Your task to perform on an android device: Open Android settings Image 0: 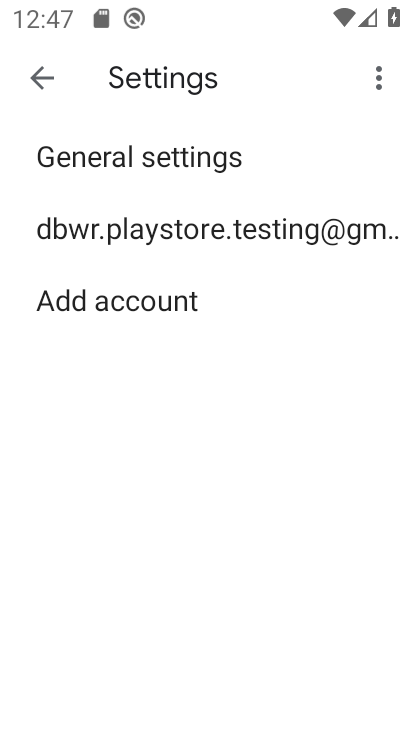
Step 0: press home button
Your task to perform on an android device: Open Android settings Image 1: 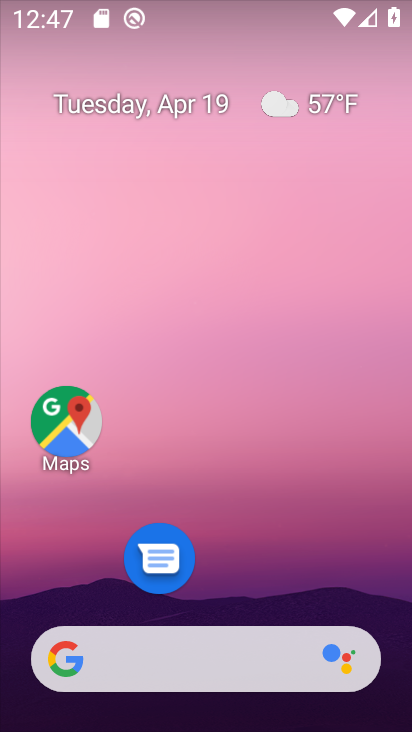
Step 1: drag from (211, 556) to (151, 37)
Your task to perform on an android device: Open Android settings Image 2: 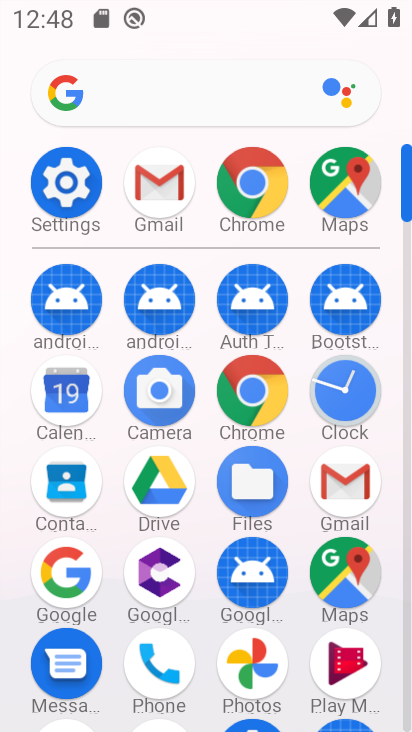
Step 2: click (81, 191)
Your task to perform on an android device: Open Android settings Image 3: 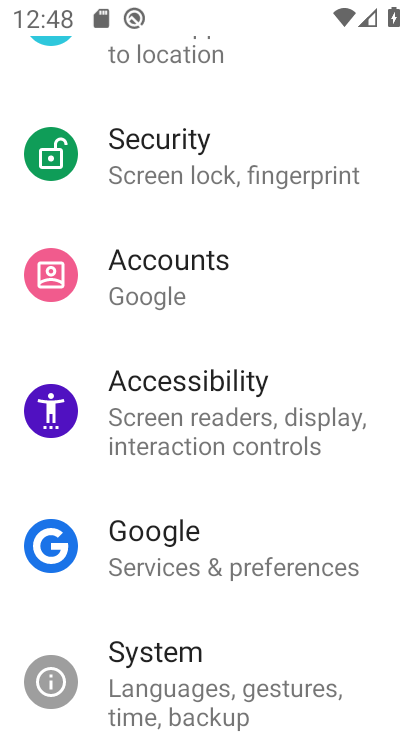
Step 3: drag from (183, 687) to (204, 218)
Your task to perform on an android device: Open Android settings Image 4: 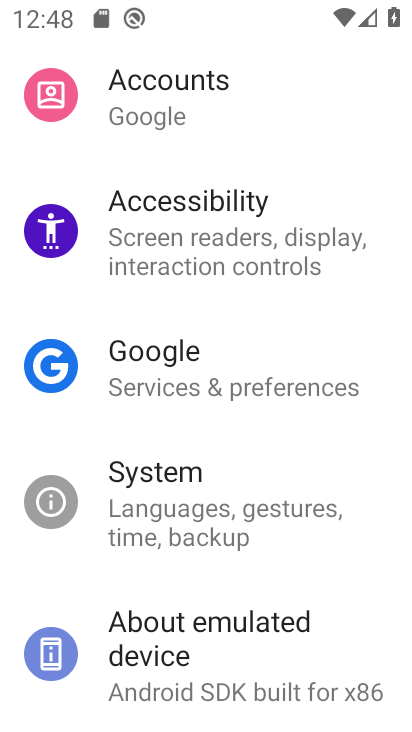
Step 4: click (187, 664)
Your task to perform on an android device: Open Android settings Image 5: 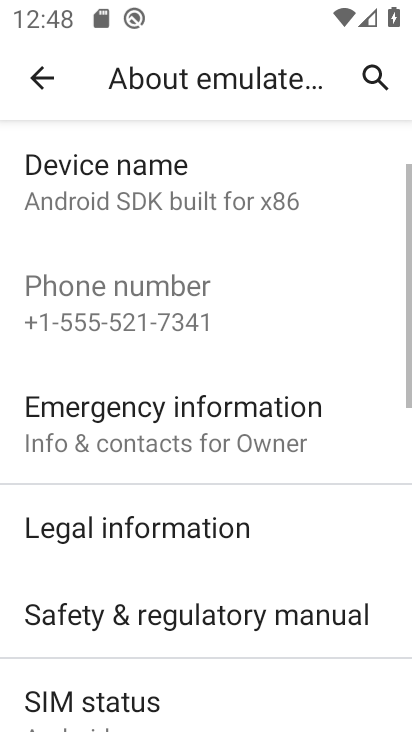
Step 5: drag from (143, 615) to (191, 179)
Your task to perform on an android device: Open Android settings Image 6: 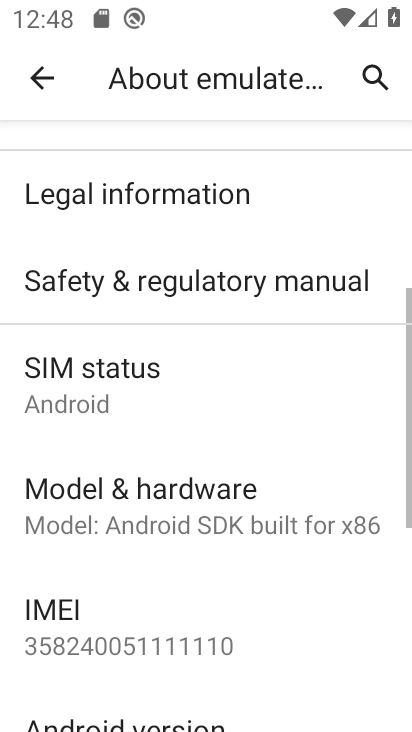
Step 6: click (133, 524)
Your task to perform on an android device: Open Android settings Image 7: 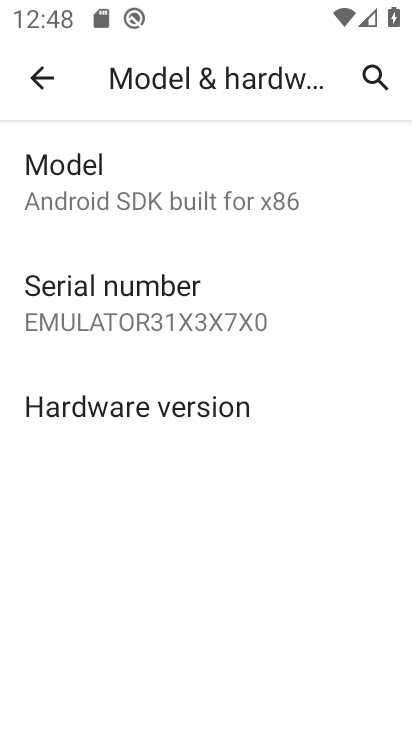
Step 7: click (31, 73)
Your task to perform on an android device: Open Android settings Image 8: 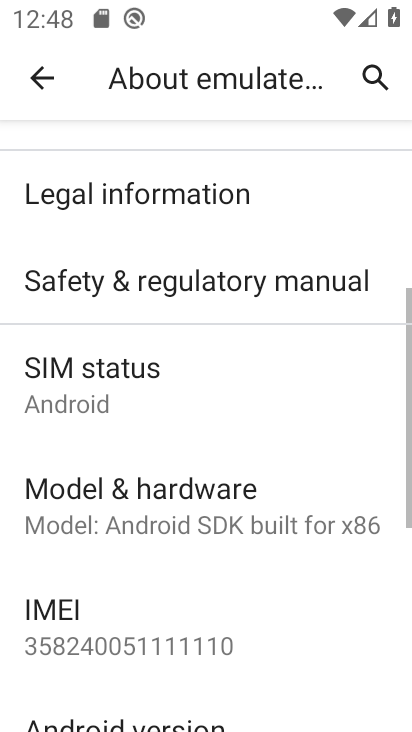
Step 8: drag from (136, 668) to (143, 209)
Your task to perform on an android device: Open Android settings Image 9: 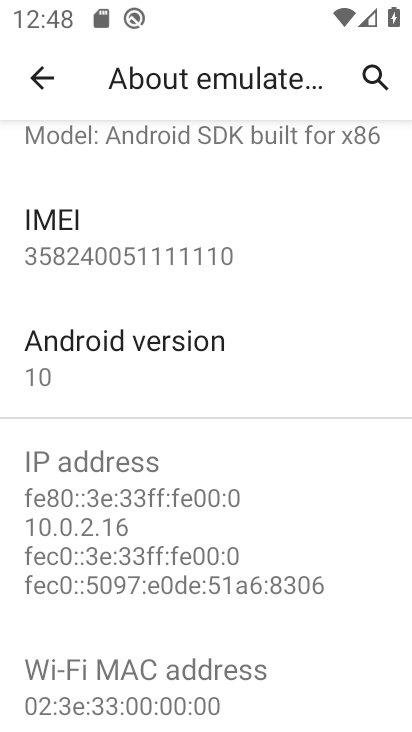
Step 9: click (89, 350)
Your task to perform on an android device: Open Android settings Image 10: 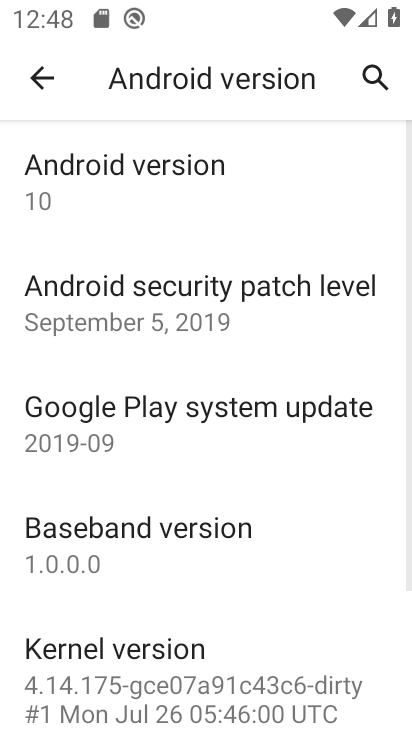
Step 10: task complete